Your task to perform on an android device: Go to Reddit.com Image 0: 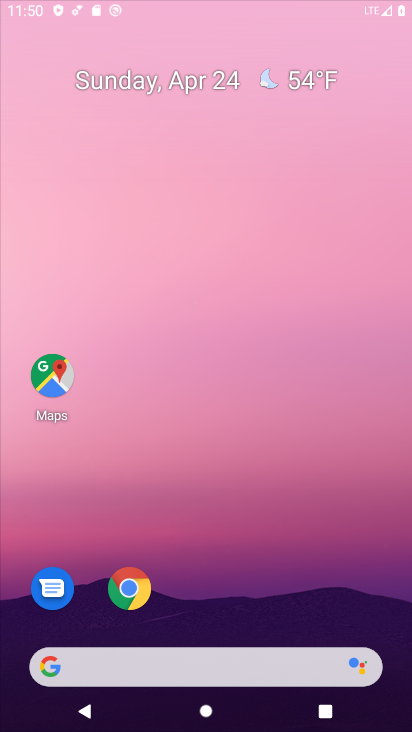
Step 0: click (104, 1)
Your task to perform on an android device: Go to Reddit.com Image 1: 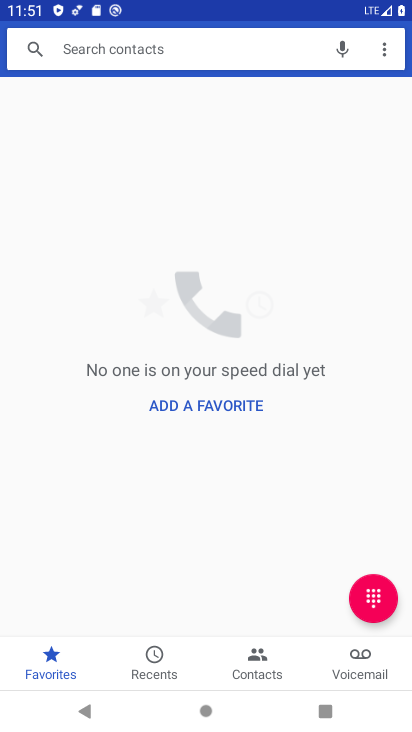
Step 1: press home button
Your task to perform on an android device: Go to Reddit.com Image 2: 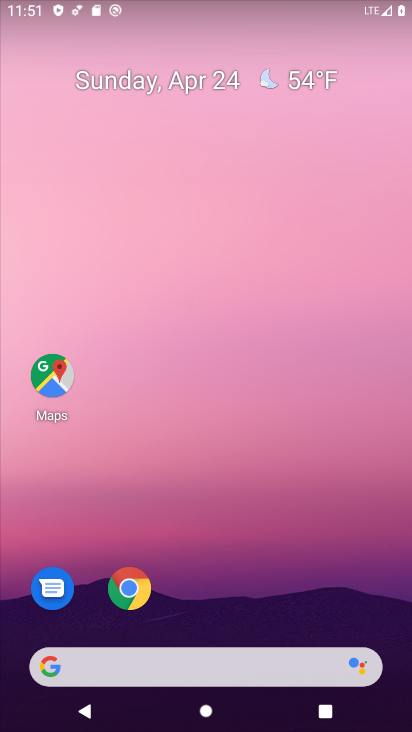
Step 2: click (220, 666)
Your task to perform on an android device: Go to Reddit.com Image 3: 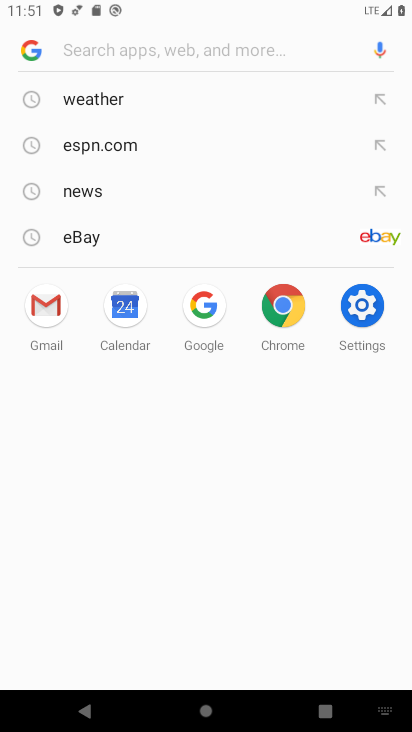
Step 3: type "reddit.com"
Your task to perform on an android device: Go to Reddit.com Image 4: 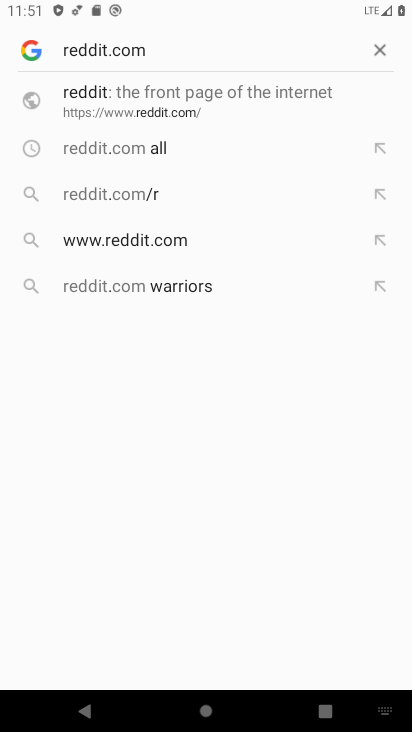
Step 4: click (170, 103)
Your task to perform on an android device: Go to Reddit.com Image 5: 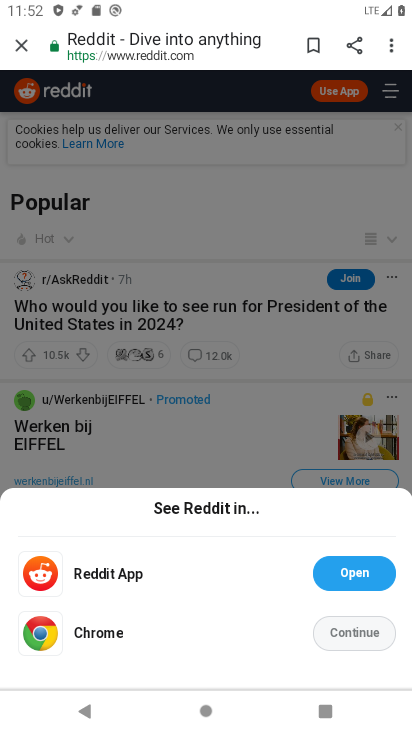
Step 5: click (299, 341)
Your task to perform on an android device: Go to Reddit.com Image 6: 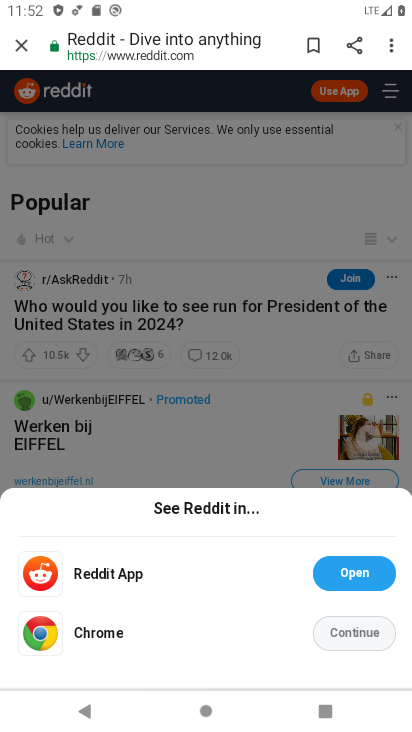
Step 6: task complete